Your task to perform on an android device: set the timer Image 0: 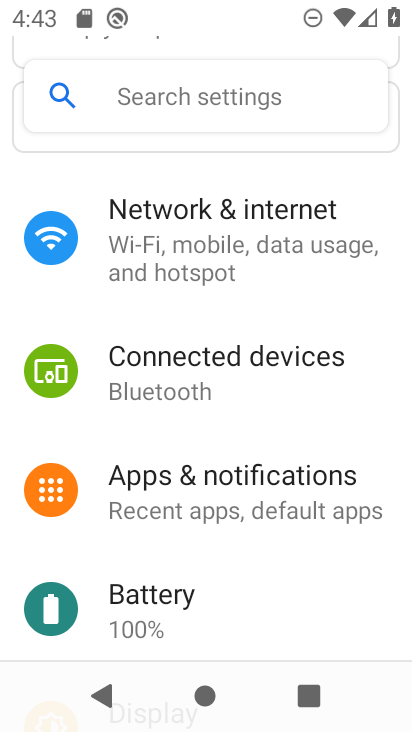
Step 0: press home button
Your task to perform on an android device: set the timer Image 1: 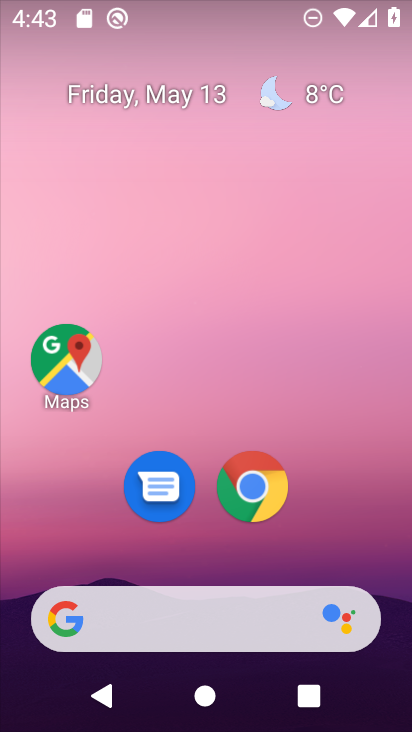
Step 1: drag from (361, 492) to (352, 294)
Your task to perform on an android device: set the timer Image 2: 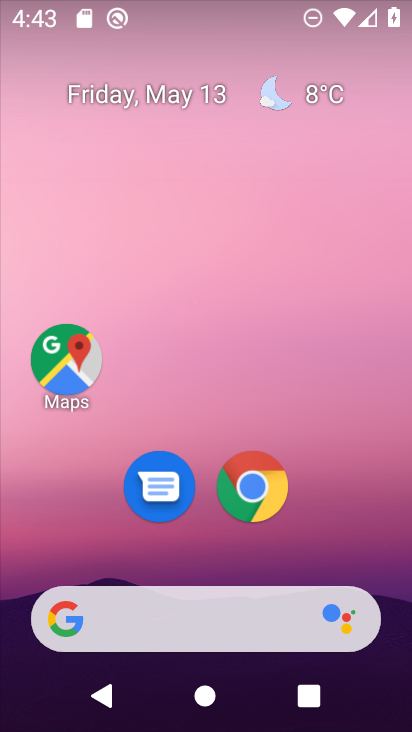
Step 2: drag from (339, 547) to (304, 224)
Your task to perform on an android device: set the timer Image 3: 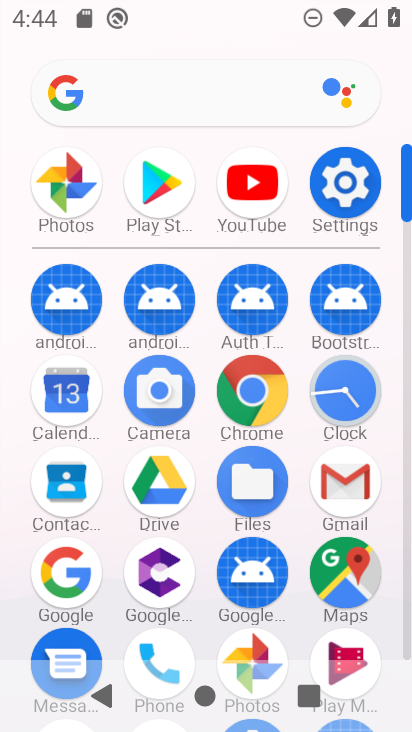
Step 3: click (352, 380)
Your task to perform on an android device: set the timer Image 4: 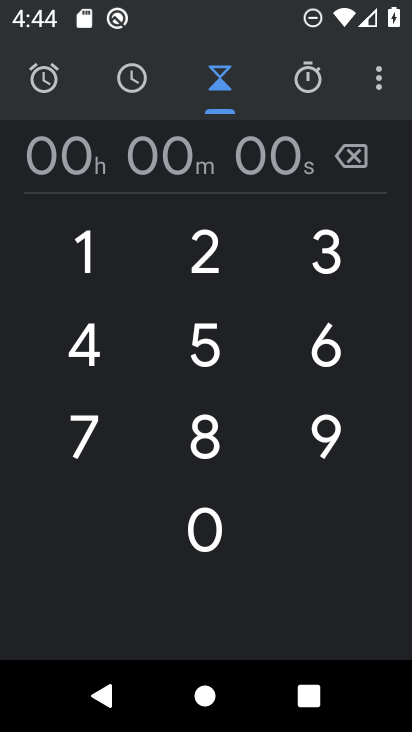
Step 4: task complete